Your task to perform on an android device: turn notification dots on Image 0: 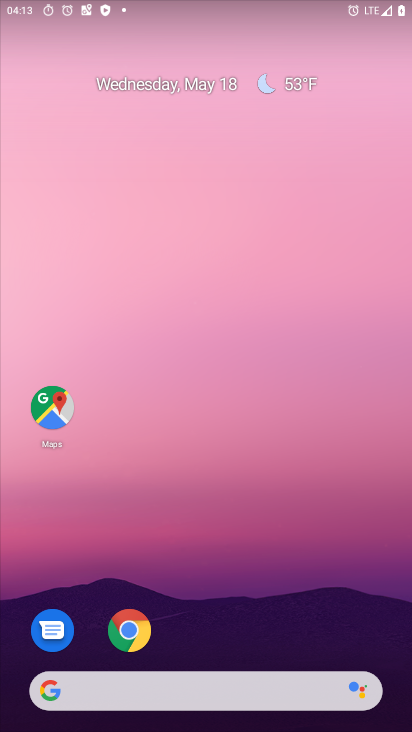
Step 0: drag from (212, 719) to (212, 90)
Your task to perform on an android device: turn notification dots on Image 1: 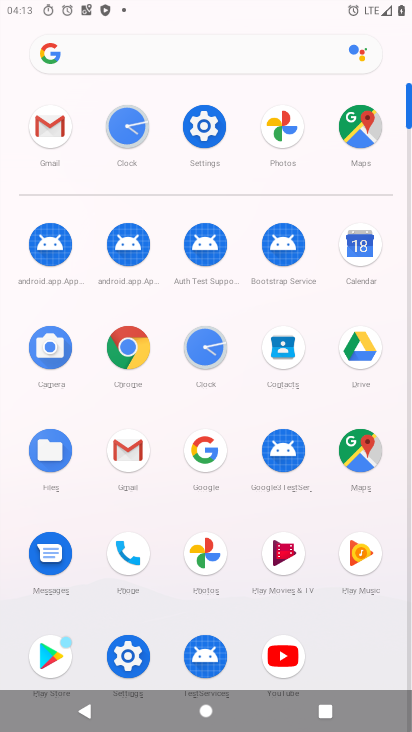
Step 1: click (209, 122)
Your task to perform on an android device: turn notification dots on Image 2: 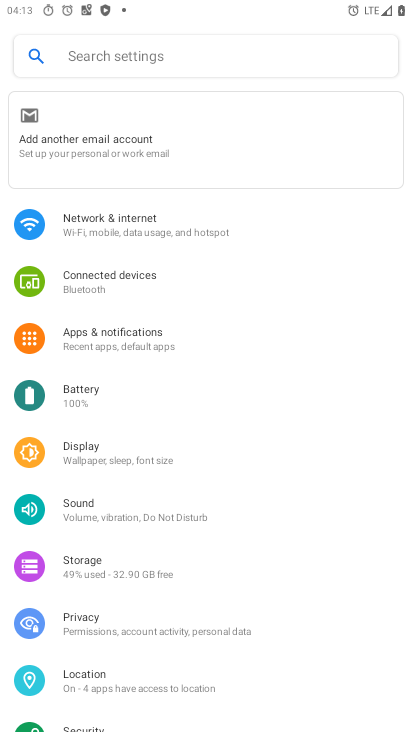
Step 2: click (114, 331)
Your task to perform on an android device: turn notification dots on Image 3: 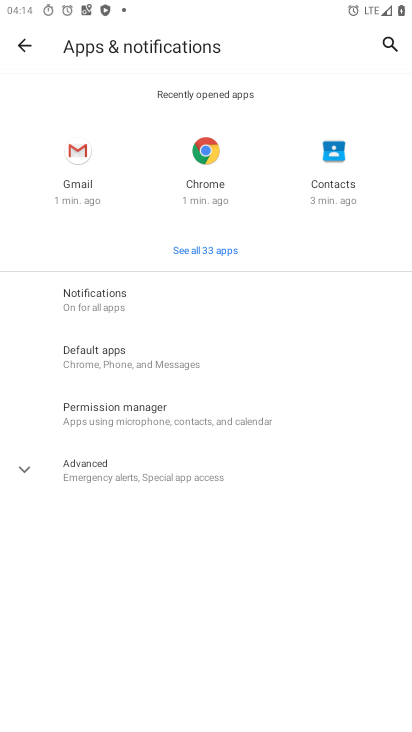
Step 3: click (94, 305)
Your task to perform on an android device: turn notification dots on Image 4: 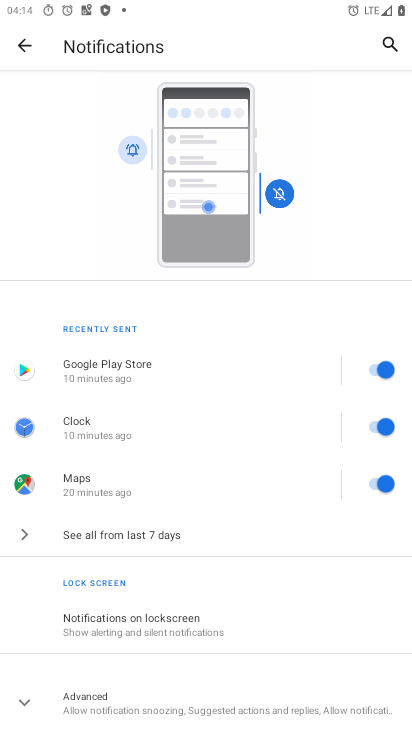
Step 4: drag from (149, 669) to (149, 388)
Your task to perform on an android device: turn notification dots on Image 5: 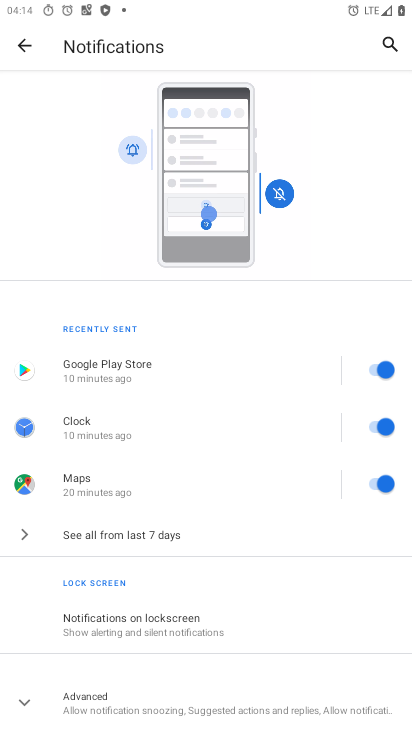
Step 5: click (156, 702)
Your task to perform on an android device: turn notification dots on Image 6: 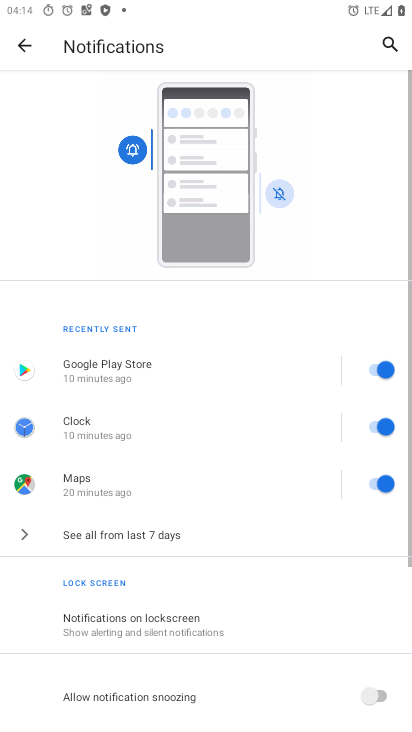
Step 6: task complete